Your task to perform on an android device: toggle notification dots Image 0: 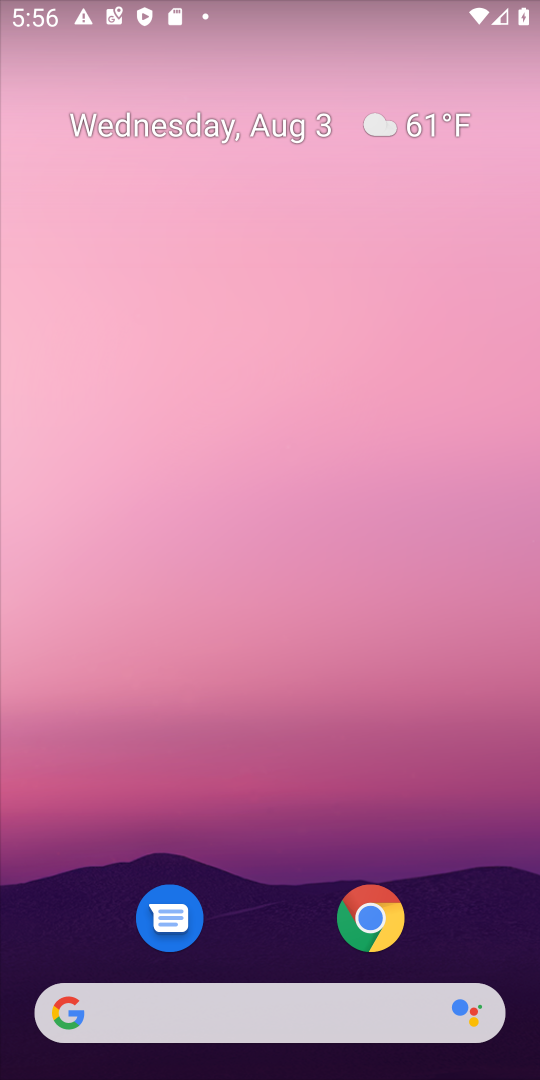
Step 0: click (272, 147)
Your task to perform on an android device: toggle notification dots Image 1: 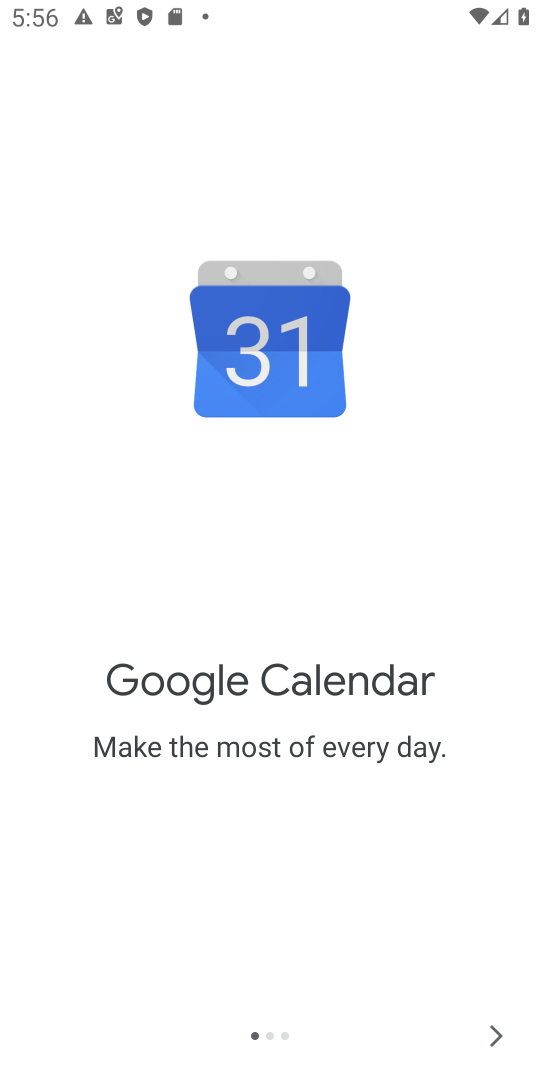
Step 1: press home button
Your task to perform on an android device: toggle notification dots Image 2: 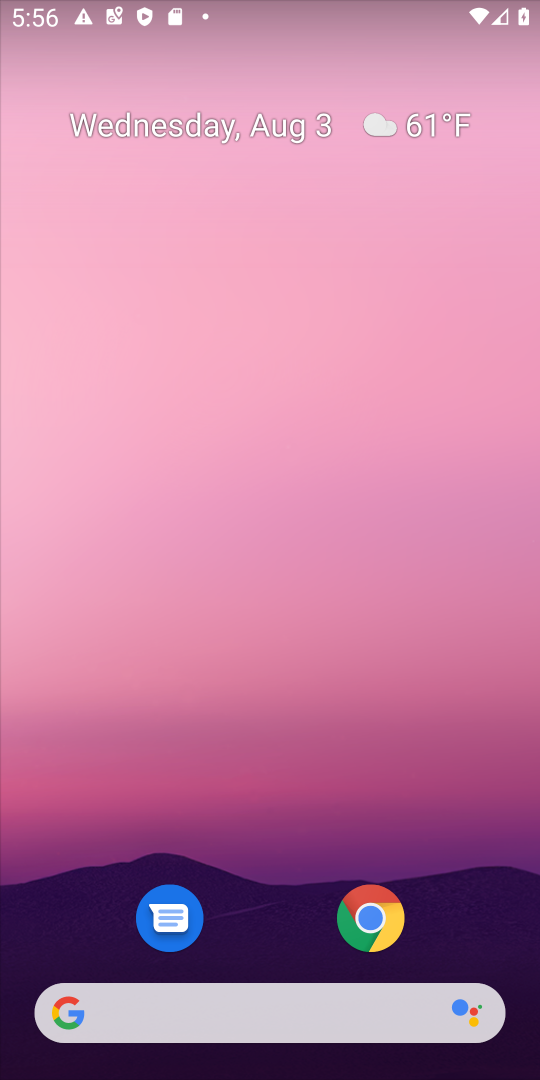
Step 2: drag from (274, 840) to (272, 208)
Your task to perform on an android device: toggle notification dots Image 3: 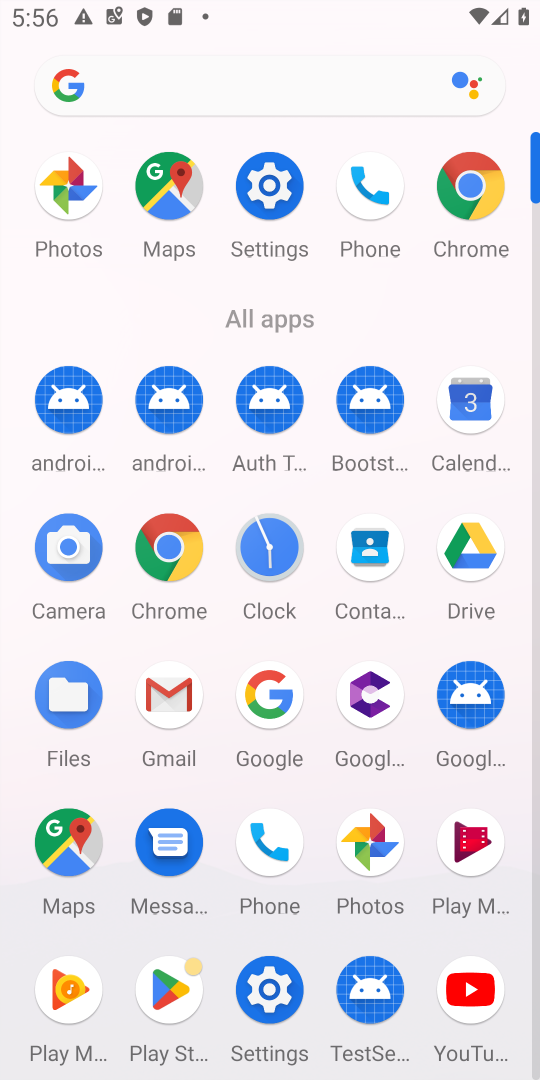
Step 3: click (280, 175)
Your task to perform on an android device: toggle notification dots Image 4: 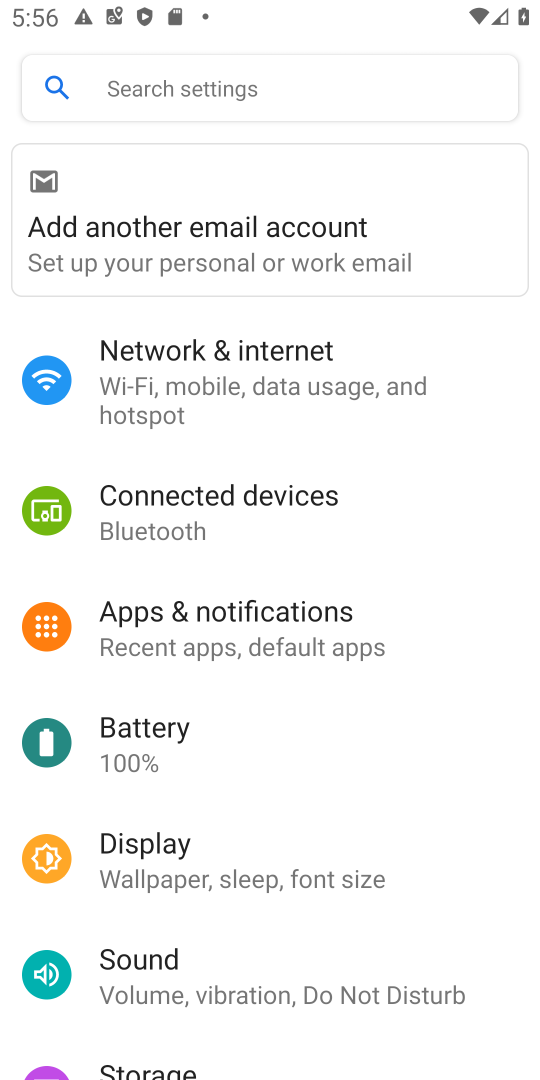
Step 4: click (235, 622)
Your task to perform on an android device: toggle notification dots Image 5: 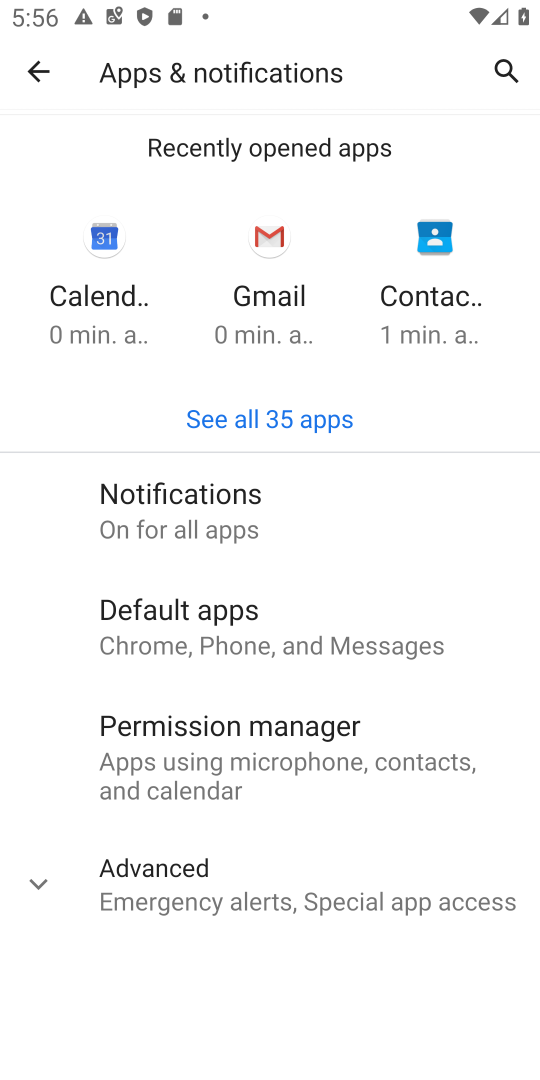
Step 5: click (345, 493)
Your task to perform on an android device: toggle notification dots Image 6: 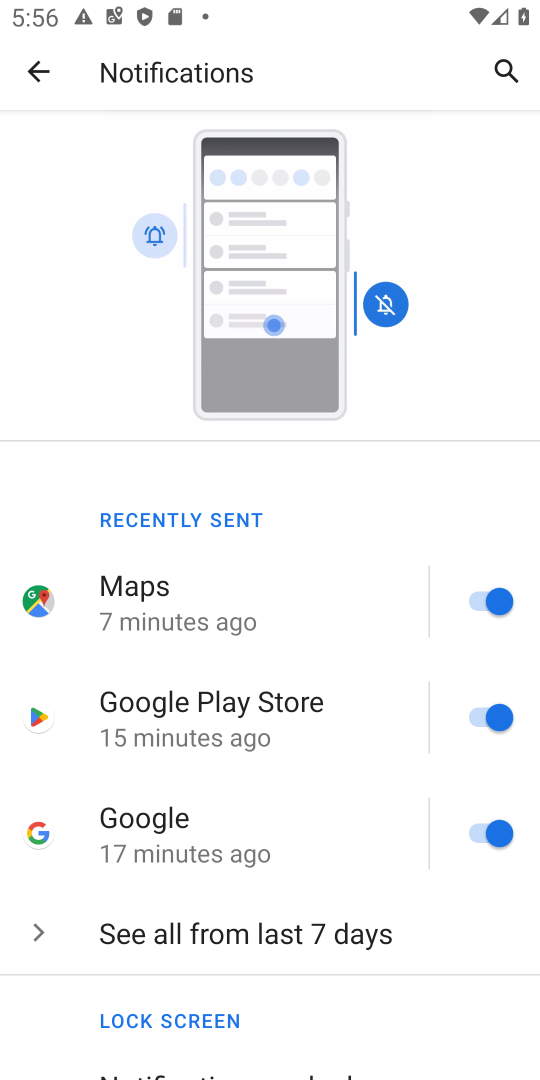
Step 6: drag from (223, 979) to (220, 289)
Your task to perform on an android device: toggle notification dots Image 7: 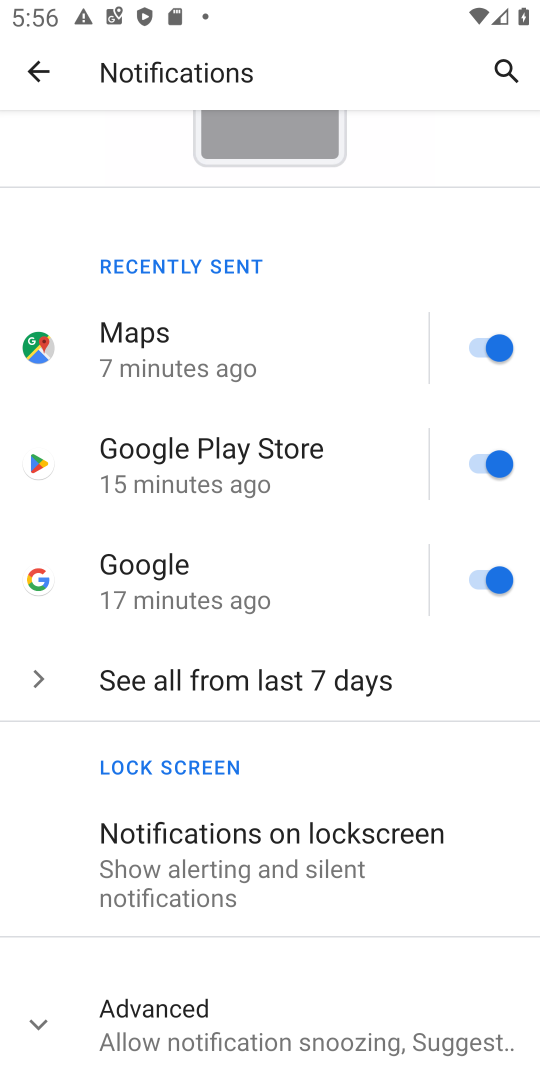
Step 7: click (318, 1003)
Your task to perform on an android device: toggle notification dots Image 8: 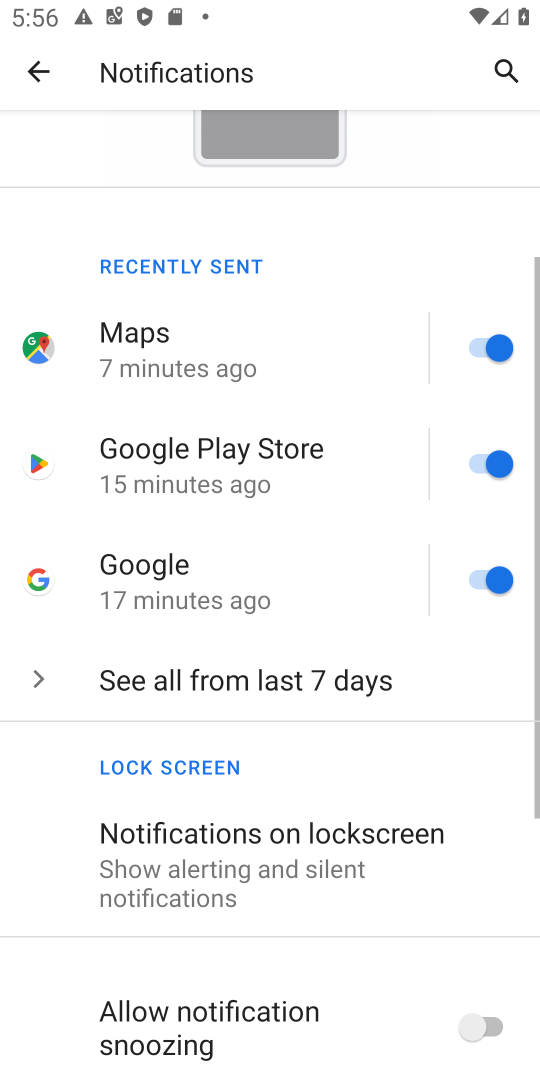
Step 8: drag from (318, 1003) to (312, 286)
Your task to perform on an android device: toggle notification dots Image 9: 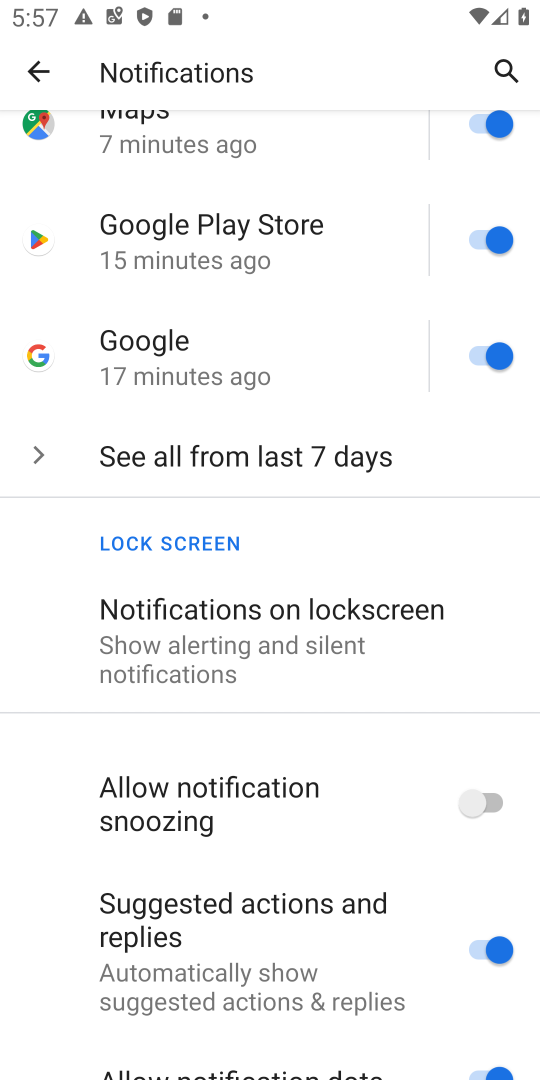
Step 9: drag from (290, 927) to (286, 530)
Your task to perform on an android device: toggle notification dots Image 10: 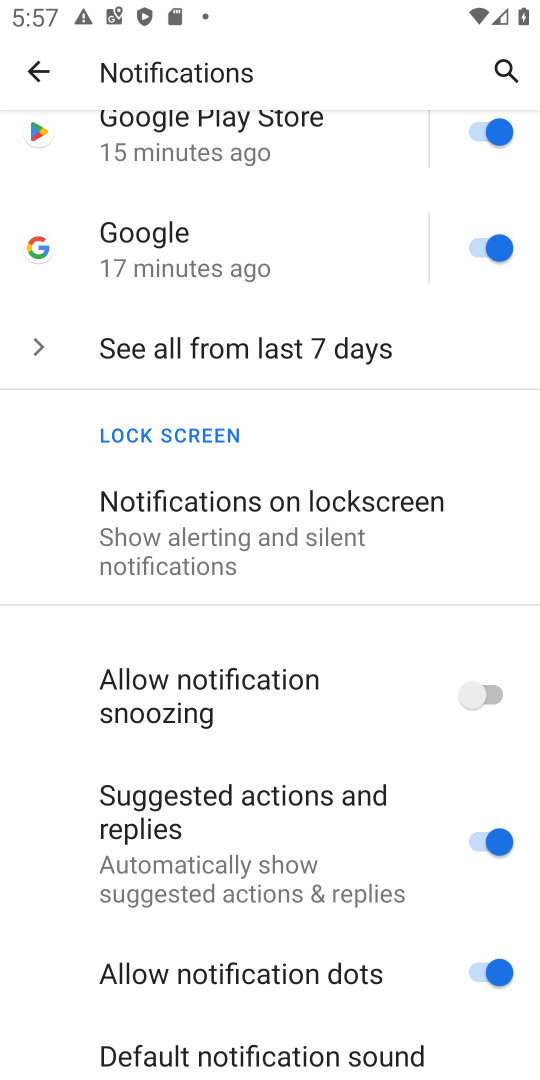
Step 10: click (482, 972)
Your task to perform on an android device: toggle notification dots Image 11: 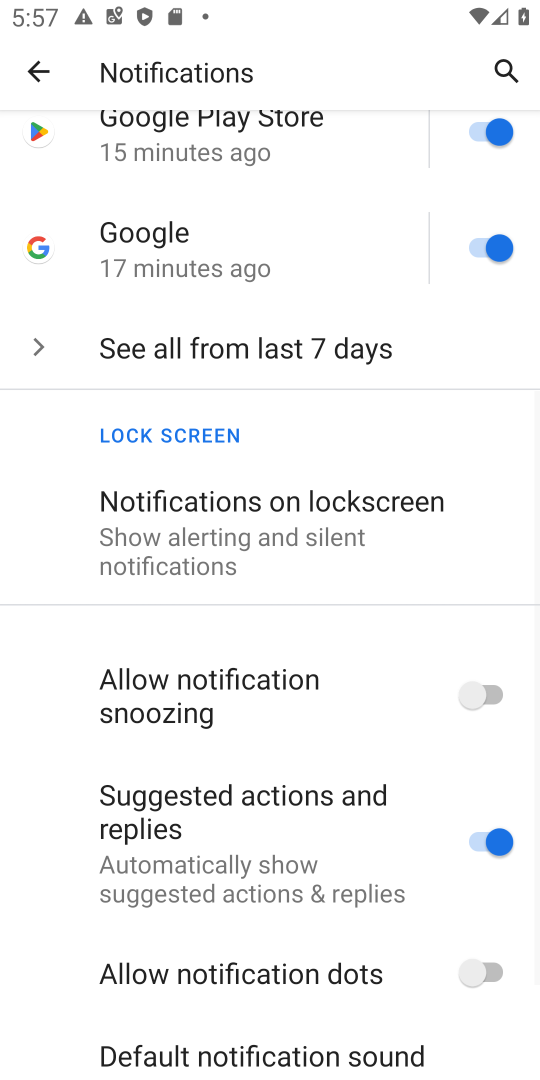
Step 11: task complete